Your task to perform on an android device: change the clock display to analog Image 0: 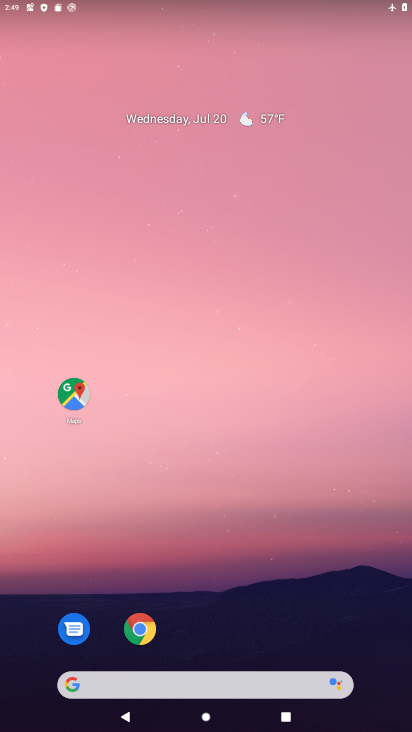
Step 0: drag from (188, 626) to (202, 183)
Your task to perform on an android device: change the clock display to analog Image 1: 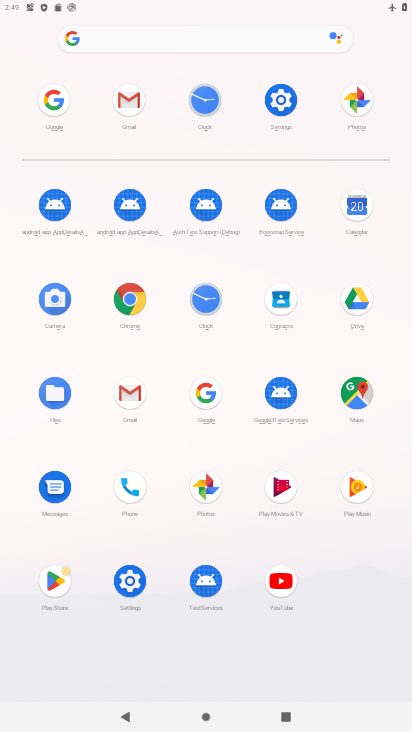
Step 1: click (206, 129)
Your task to perform on an android device: change the clock display to analog Image 2: 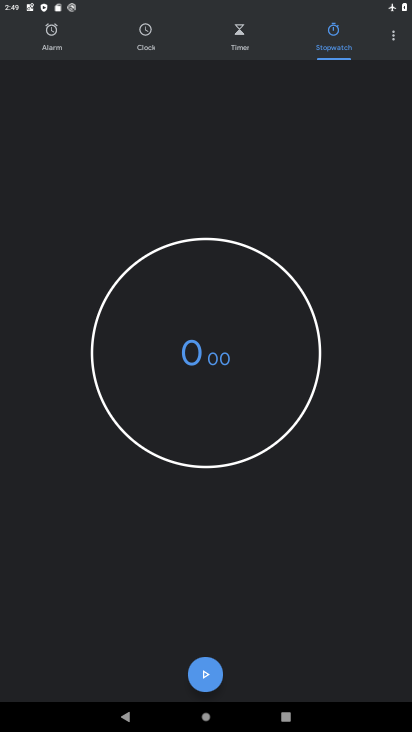
Step 2: click (388, 29)
Your task to perform on an android device: change the clock display to analog Image 3: 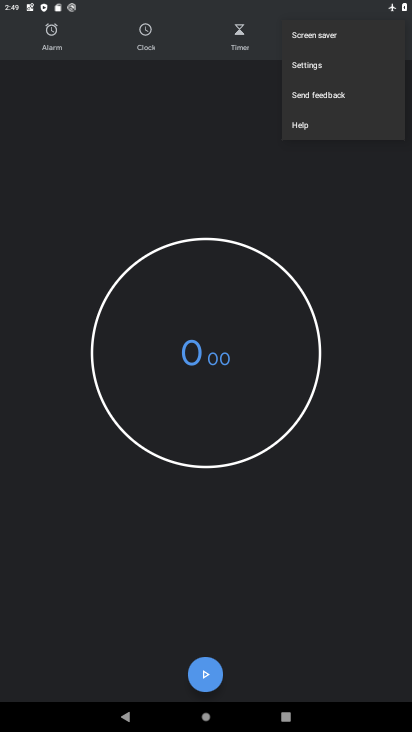
Step 3: click (337, 70)
Your task to perform on an android device: change the clock display to analog Image 4: 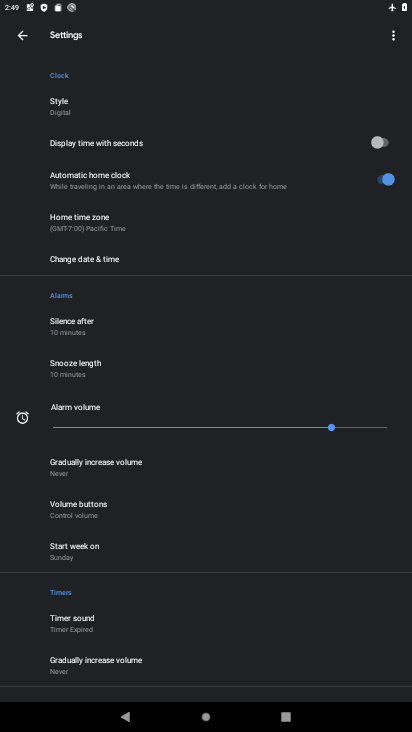
Step 4: click (75, 116)
Your task to perform on an android device: change the clock display to analog Image 5: 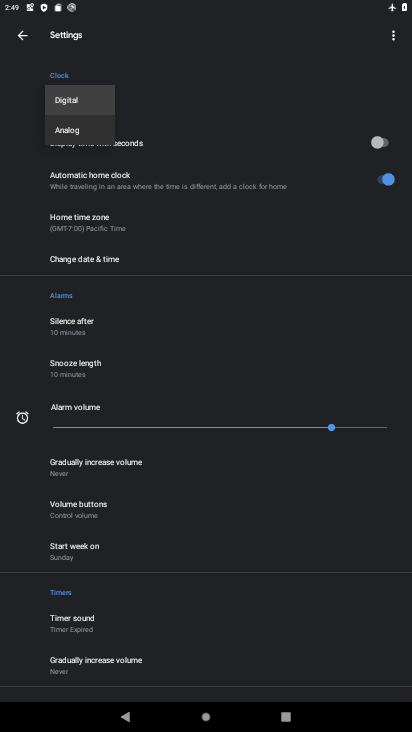
Step 5: click (73, 137)
Your task to perform on an android device: change the clock display to analog Image 6: 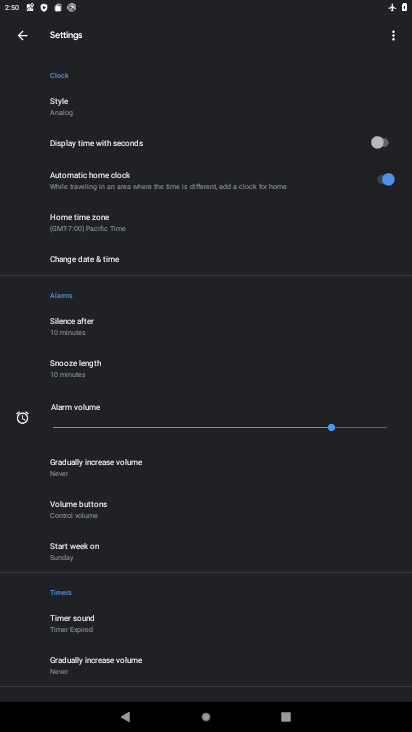
Step 6: task complete